Your task to perform on an android device: check android version Image 0: 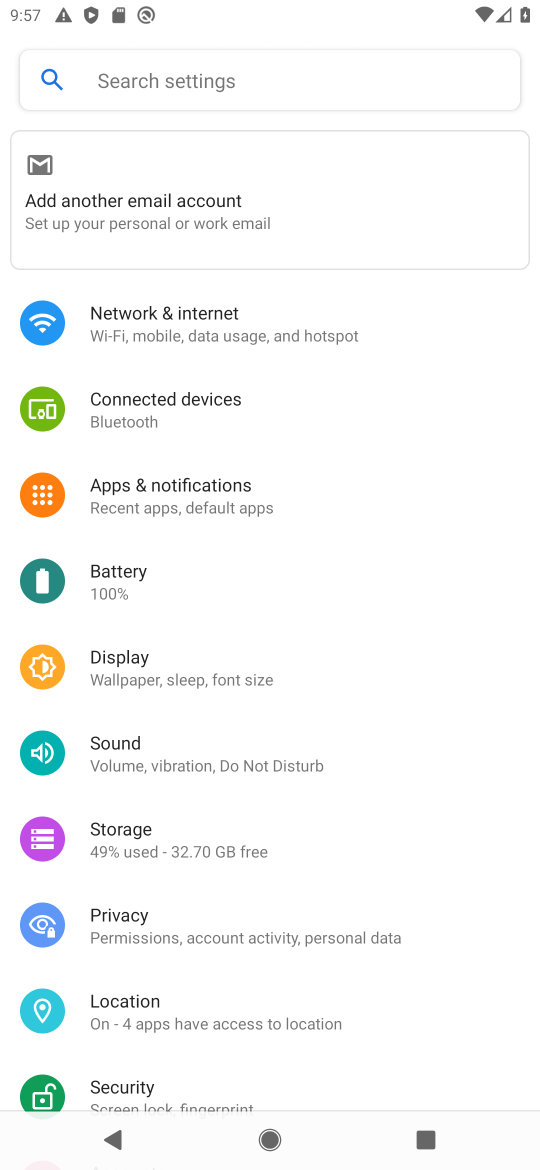
Step 0: drag from (442, 1047) to (229, 149)
Your task to perform on an android device: check android version Image 1: 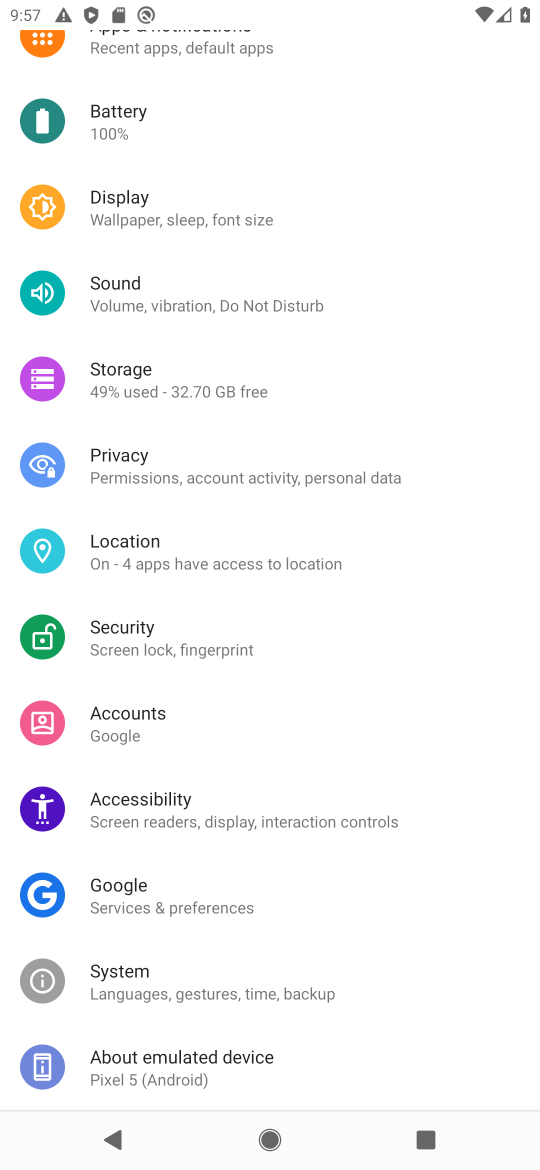
Step 1: click (230, 1074)
Your task to perform on an android device: check android version Image 2: 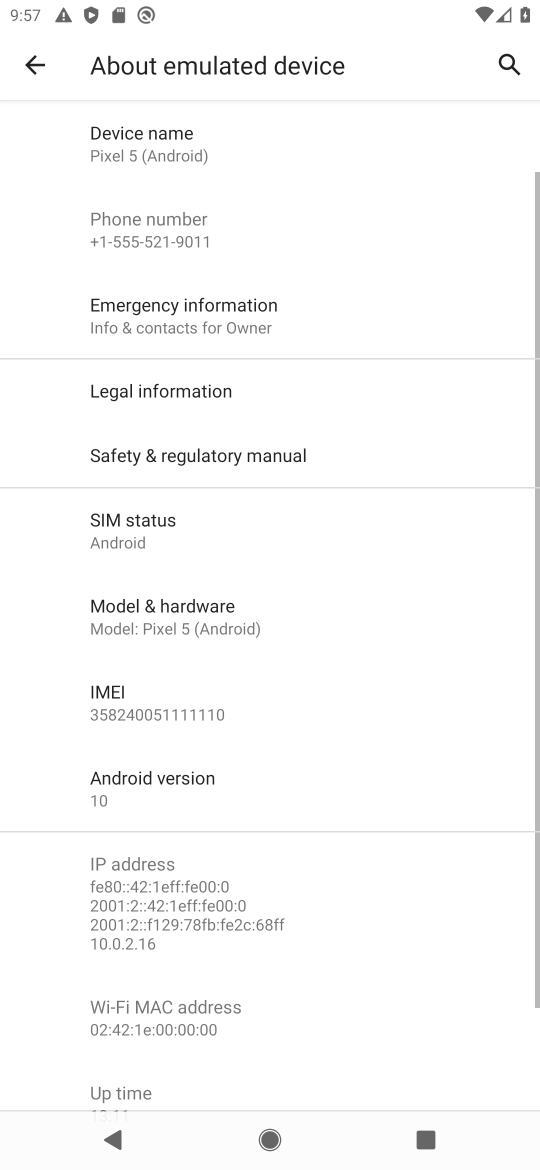
Step 2: click (252, 799)
Your task to perform on an android device: check android version Image 3: 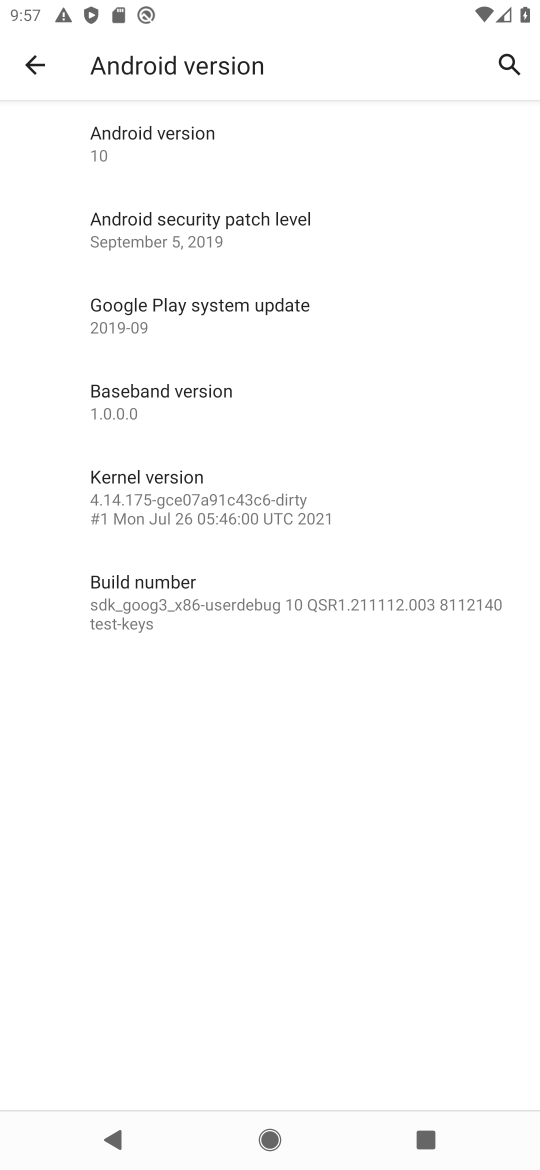
Step 3: task complete